Your task to perform on an android device: turn off data saver in the chrome app Image 0: 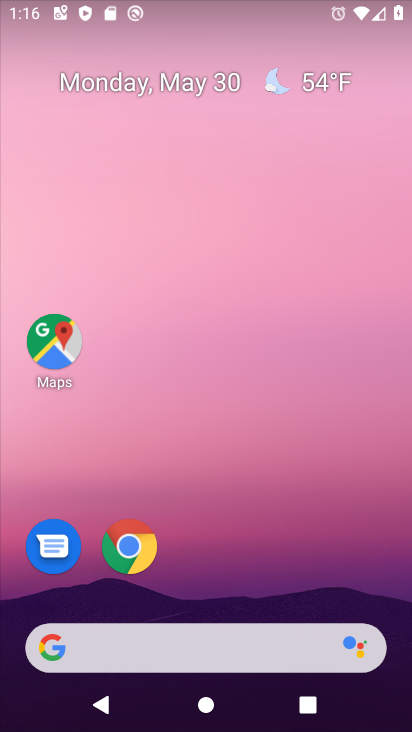
Step 0: click (118, 566)
Your task to perform on an android device: turn off data saver in the chrome app Image 1: 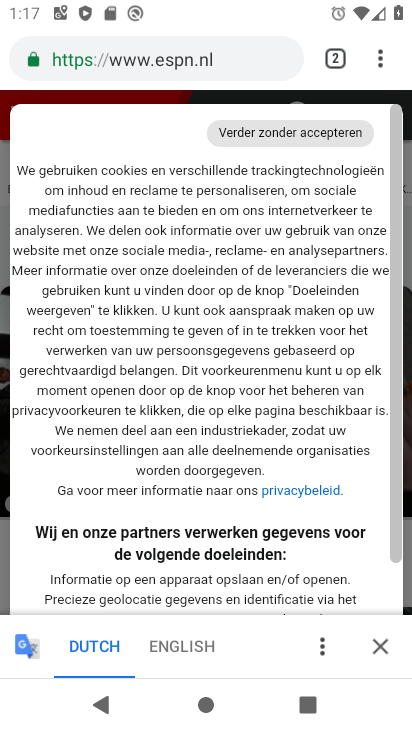
Step 1: drag from (377, 53) to (186, 585)
Your task to perform on an android device: turn off data saver in the chrome app Image 2: 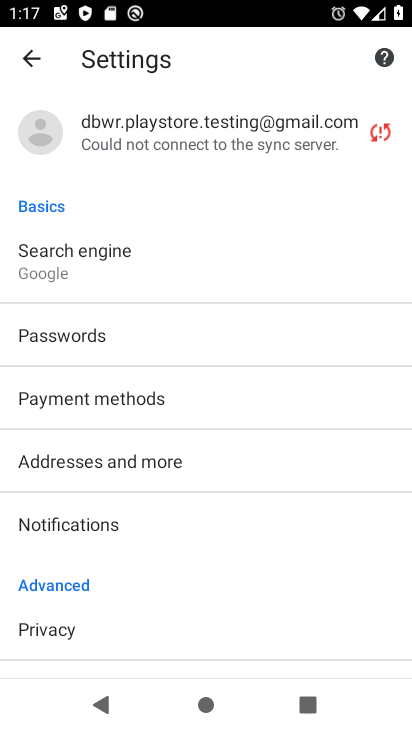
Step 2: drag from (204, 586) to (215, 276)
Your task to perform on an android device: turn off data saver in the chrome app Image 3: 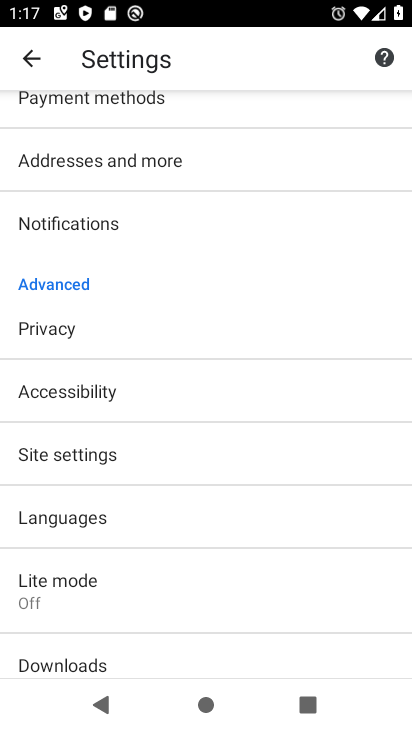
Step 3: click (55, 585)
Your task to perform on an android device: turn off data saver in the chrome app Image 4: 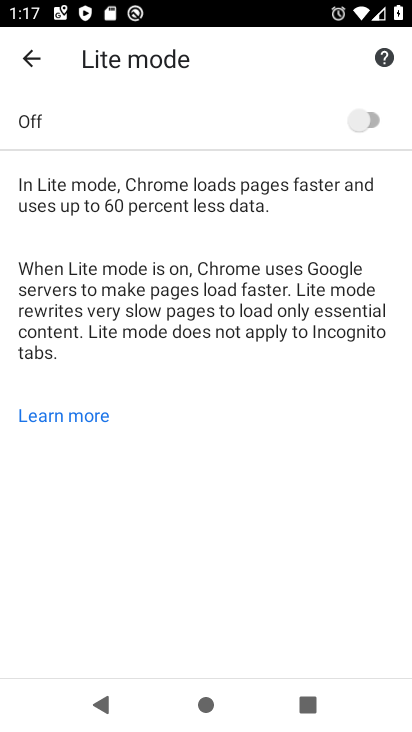
Step 4: task complete